Your task to perform on an android device: change notifications settings Image 0: 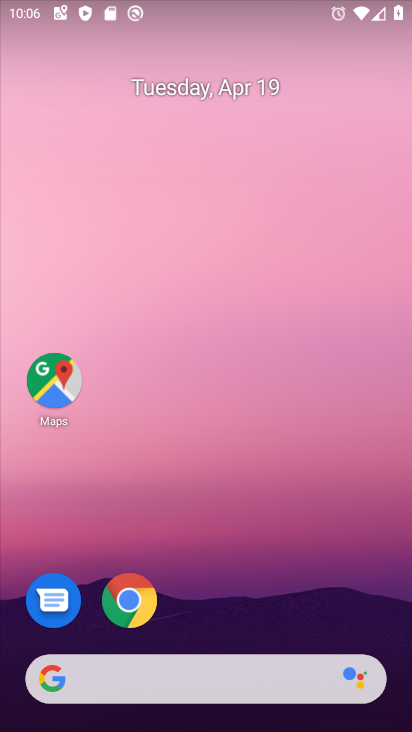
Step 0: drag from (272, 606) to (265, 219)
Your task to perform on an android device: change notifications settings Image 1: 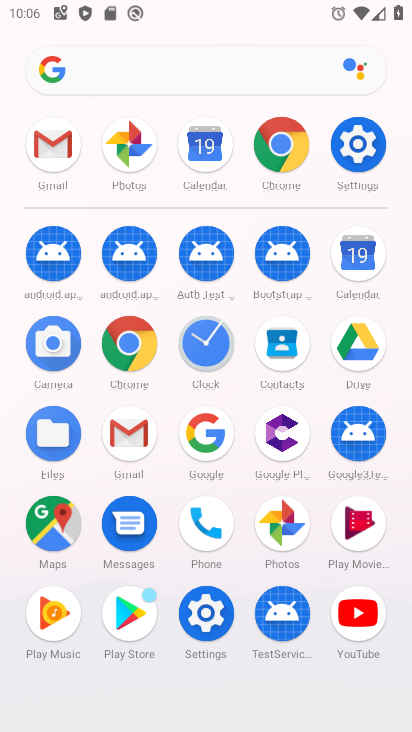
Step 1: click (355, 135)
Your task to perform on an android device: change notifications settings Image 2: 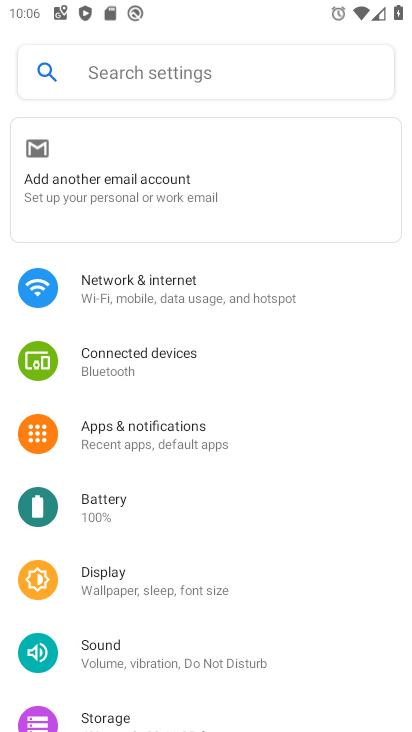
Step 2: click (190, 437)
Your task to perform on an android device: change notifications settings Image 3: 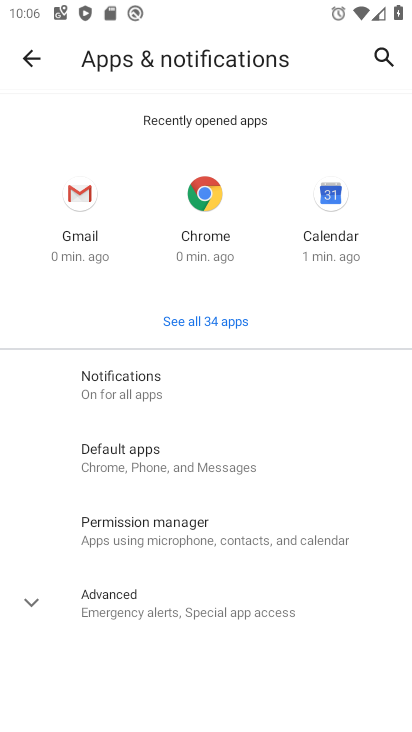
Step 3: click (211, 401)
Your task to perform on an android device: change notifications settings Image 4: 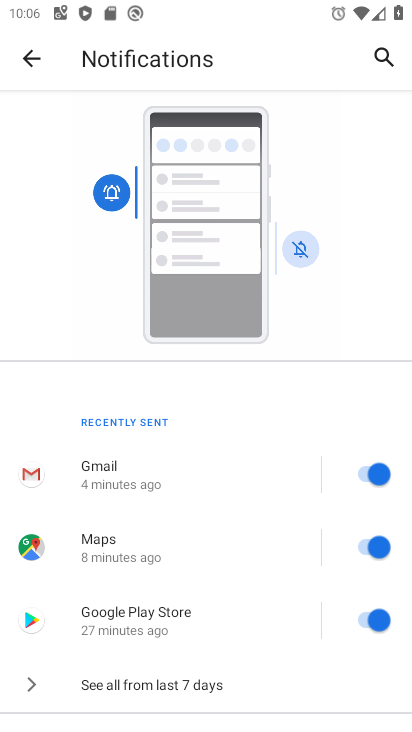
Step 4: task complete